Your task to perform on an android device: Go to Wikipedia Image 0: 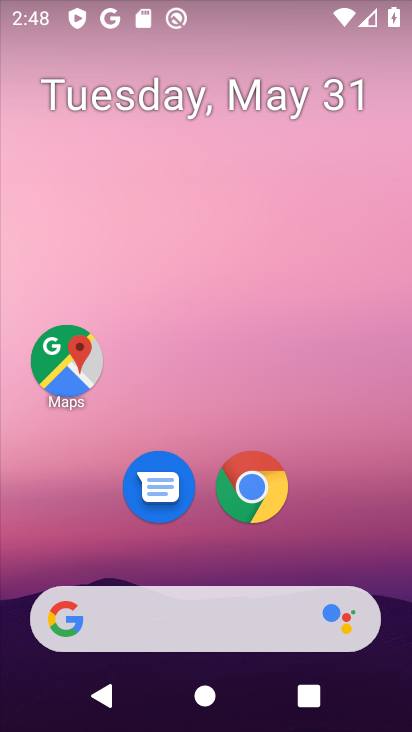
Step 0: click (258, 503)
Your task to perform on an android device: Go to Wikipedia Image 1: 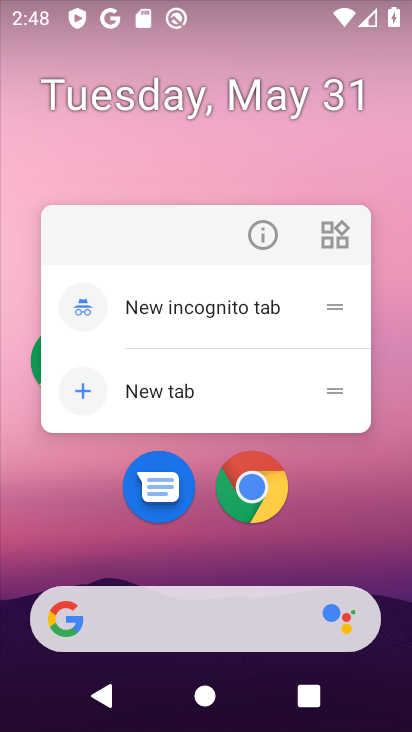
Step 1: click (246, 503)
Your task to perform on an android device: Go to Wikipedia Image 2: 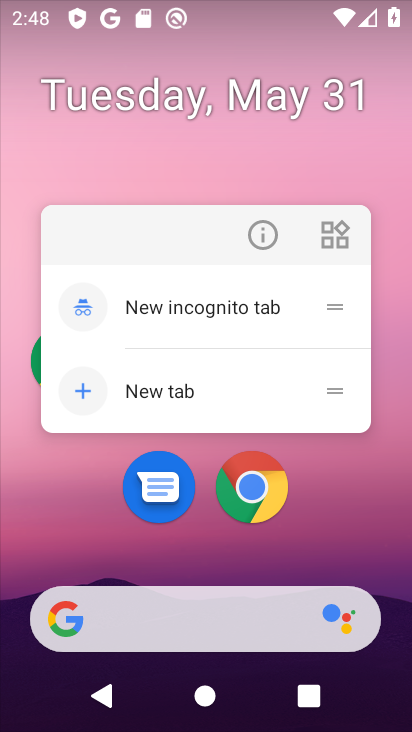
Step 2: click (250, 503)
Your task to perform on an android device: Go to Wikipedia Image 3: 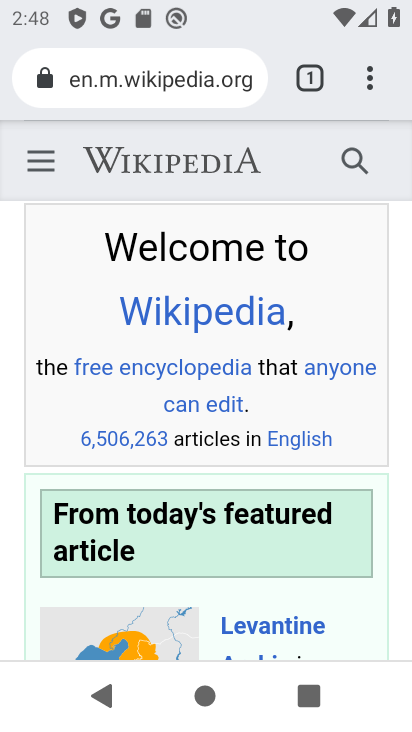
Step 3: task complete